Your task to perform on an android device: What's the weather going to be this weekend? Image 0: 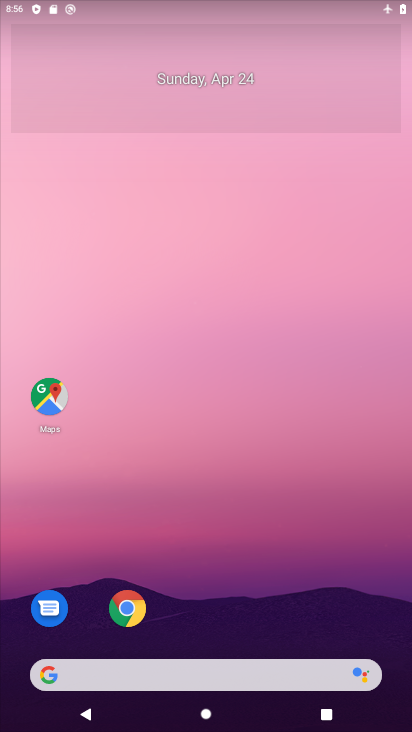
Step 0: drag from (214, 612) to (236, 181)
Your task to perform on an android device: What's the weather going to be this weekend? Image 1: 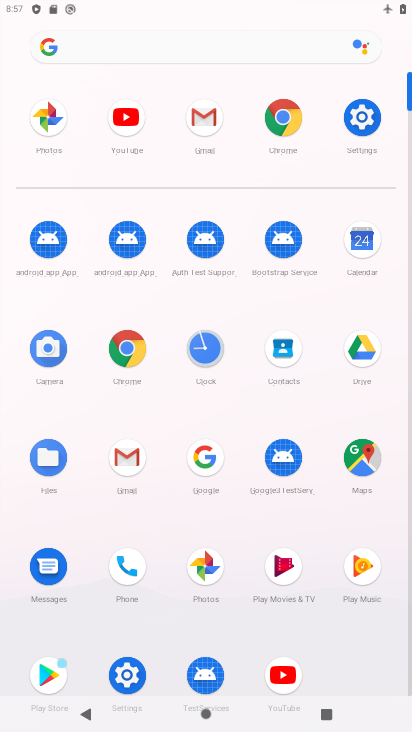
Step 1: click (203, 456)
Your task to perform on an android device: What's the weather going to be this weekend? Image 2: 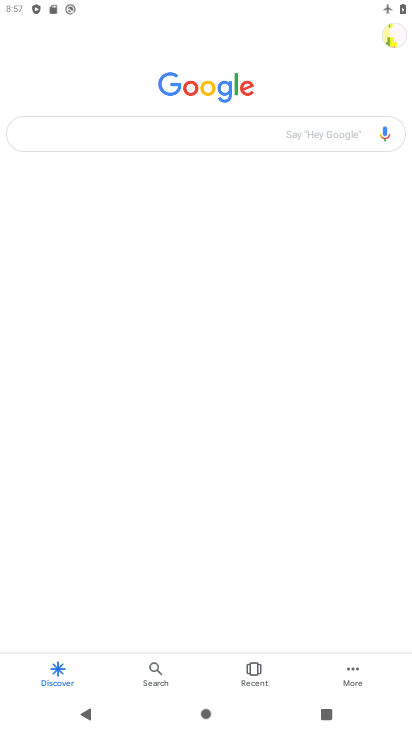
Step 2: task complete